Your task to perform on an android device: check google app version Image 0: 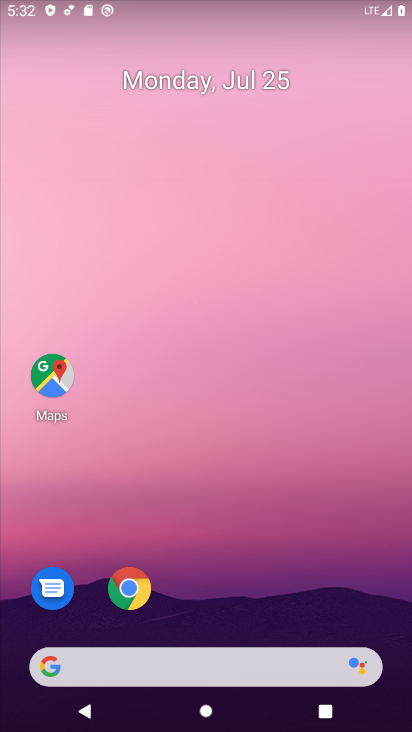
Step 0: drag from (180, 671) to (194, 116)
Your task to perform on an android device: check google app version Image 1: 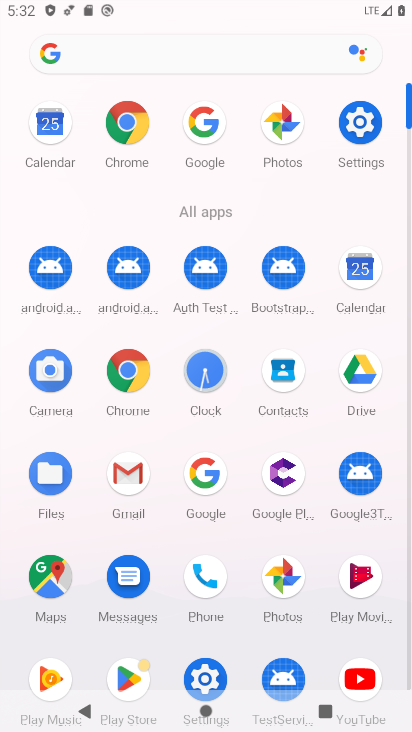
Step 1: click (203, 121)
Your task to perform on an android device: check google app version Image 2: 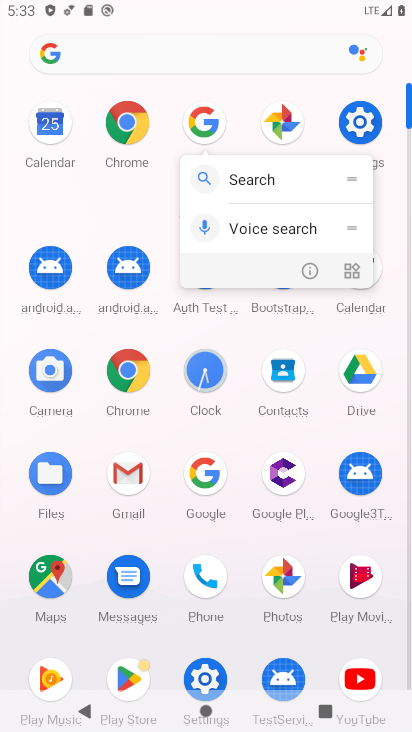
Step 2: click (311, 268)
Your task to perform on an android device: check google app version Image 3: 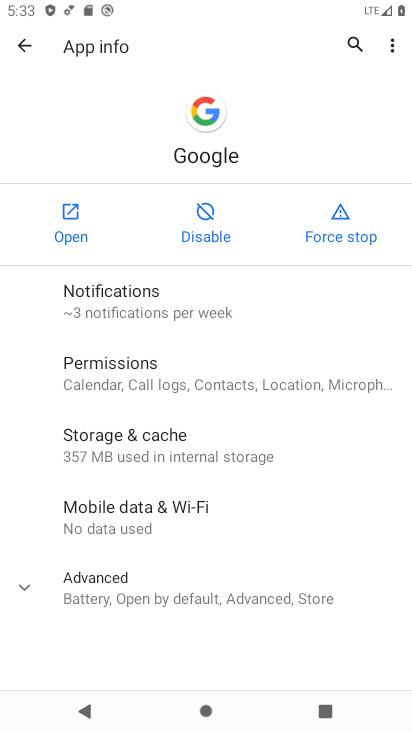
Step 3: click (181, 599)
Your task to perform on an android device: check google app version Image 4: 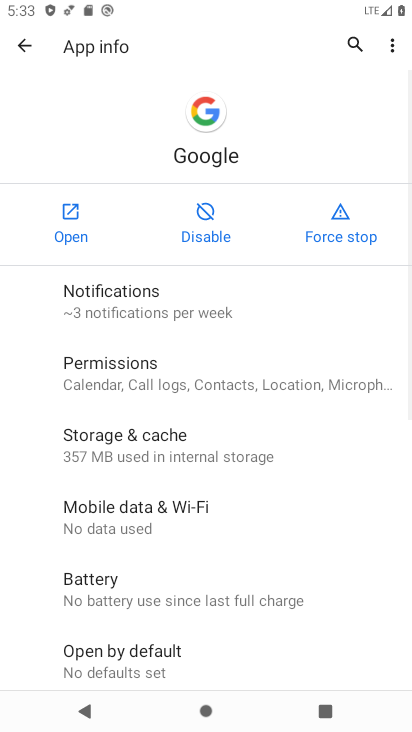
Step 4: task complete